Your task to perform on an android device: turn pop-ups off in chrome Image 0: 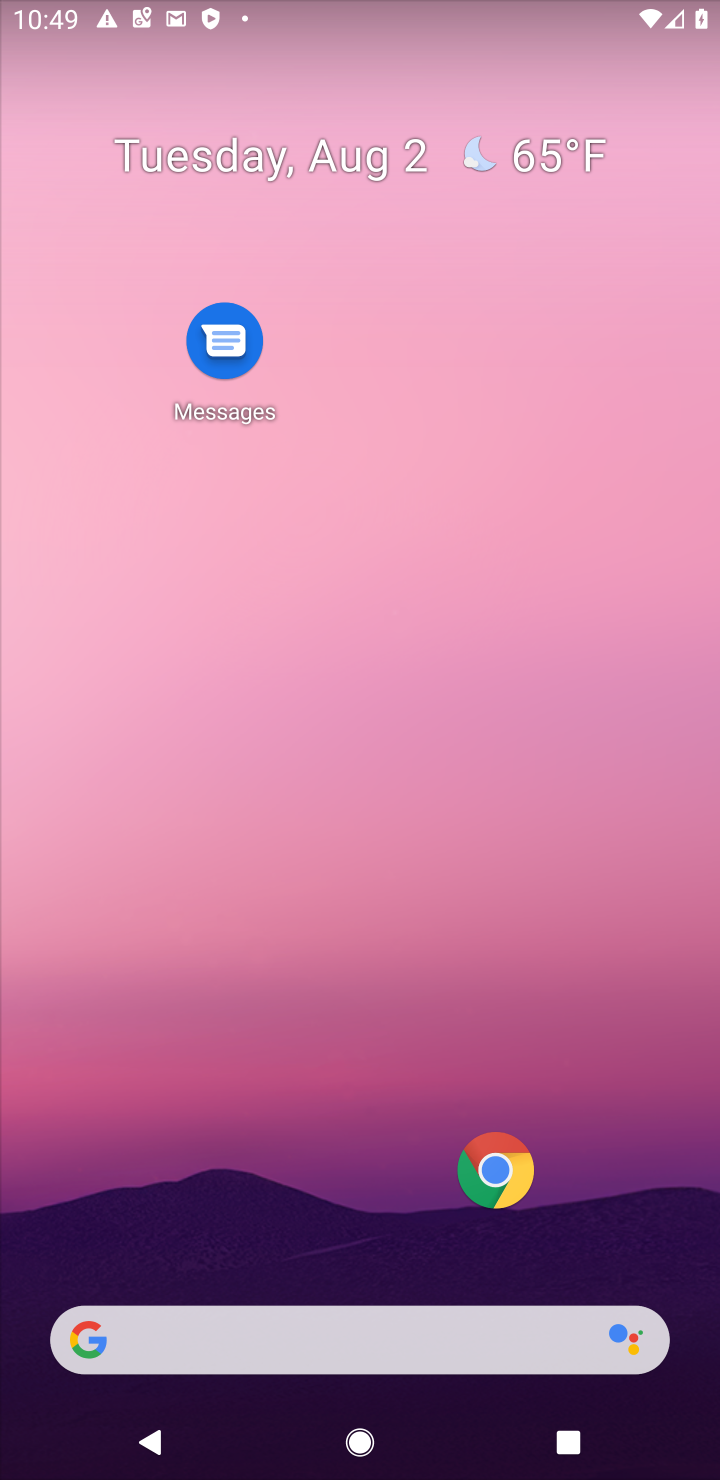
Step 0: click (362, 295)
Your task to perform on an android device: turn pop-ups off in chrome Image 1: 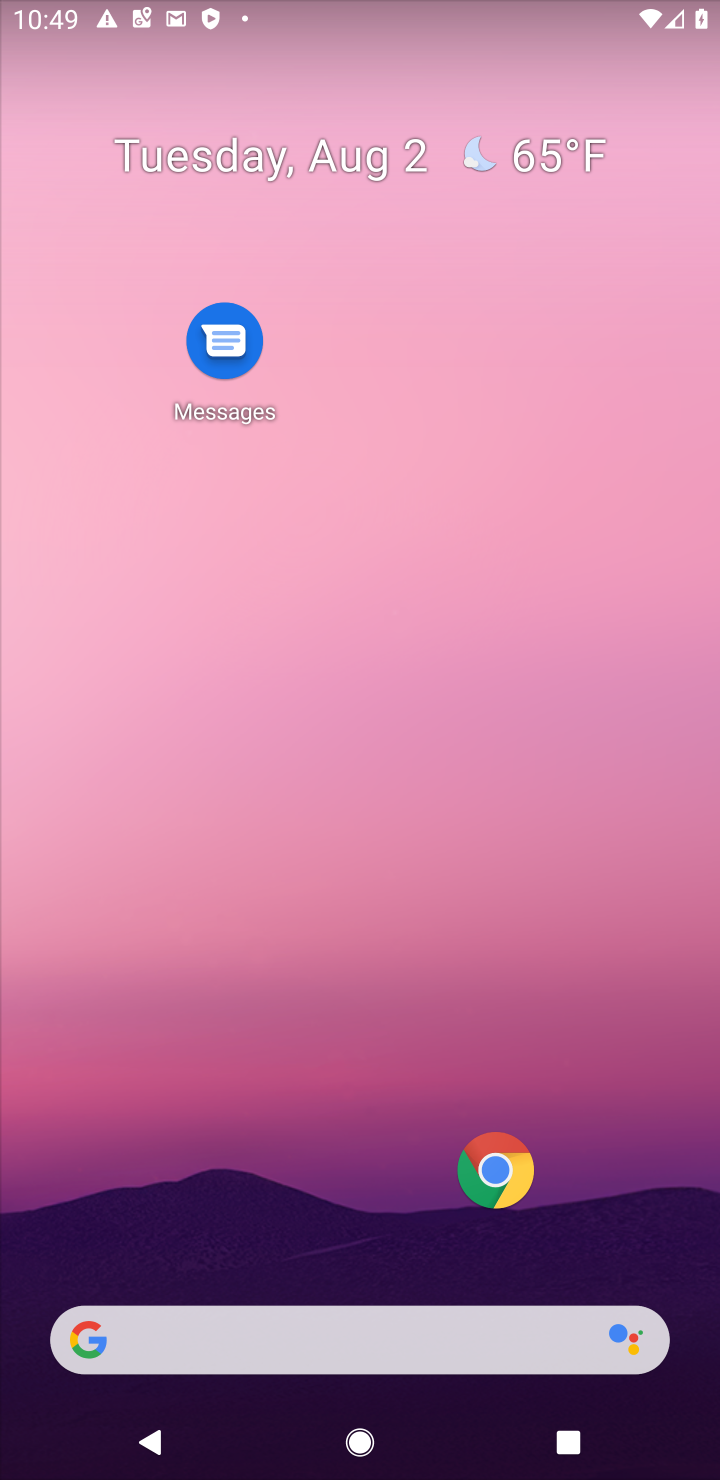
Step 1: drag from (451, 1121) to (612, 488)
Your task to perform on an android device: turn pop-ups off in chrome Image 2: 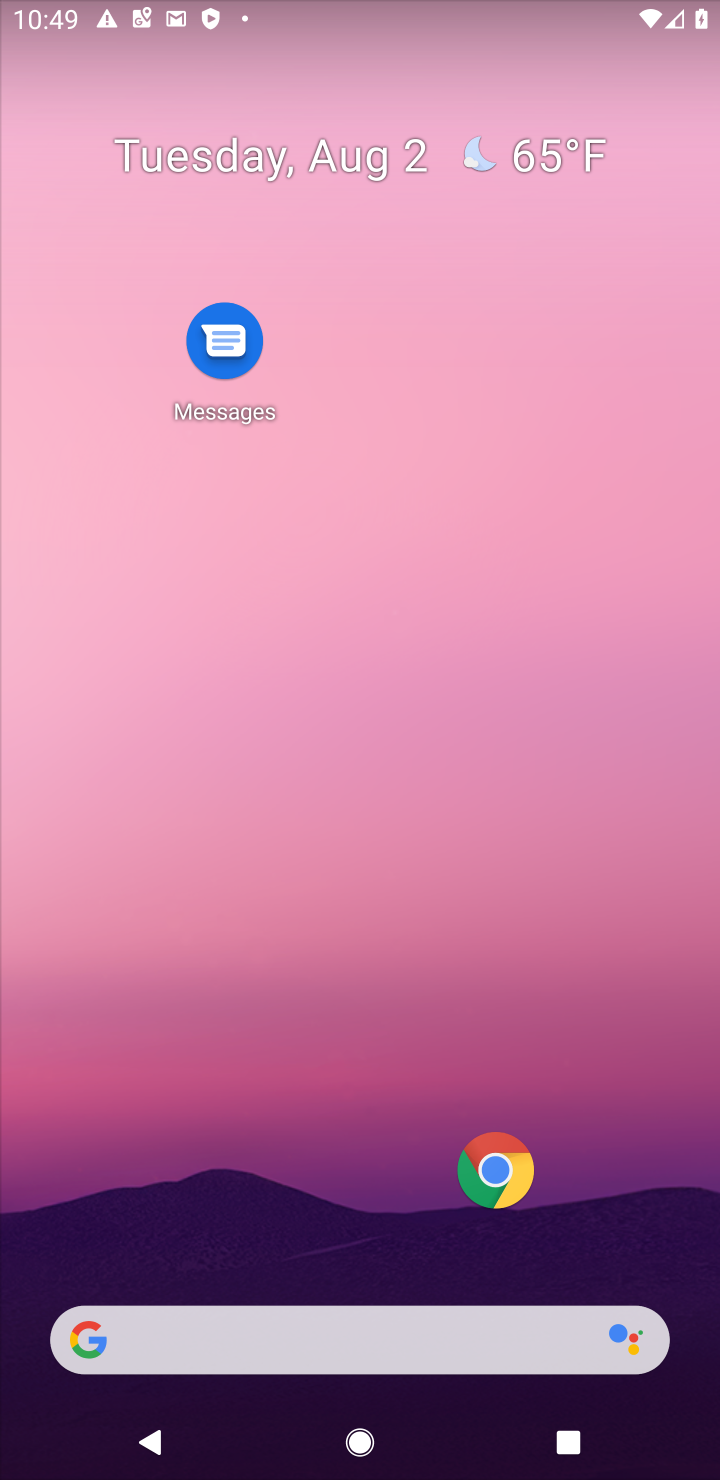
Step 2: click (412, 147)
Your task to perform on an android device: turn pop-ups off in chrome Image 3: 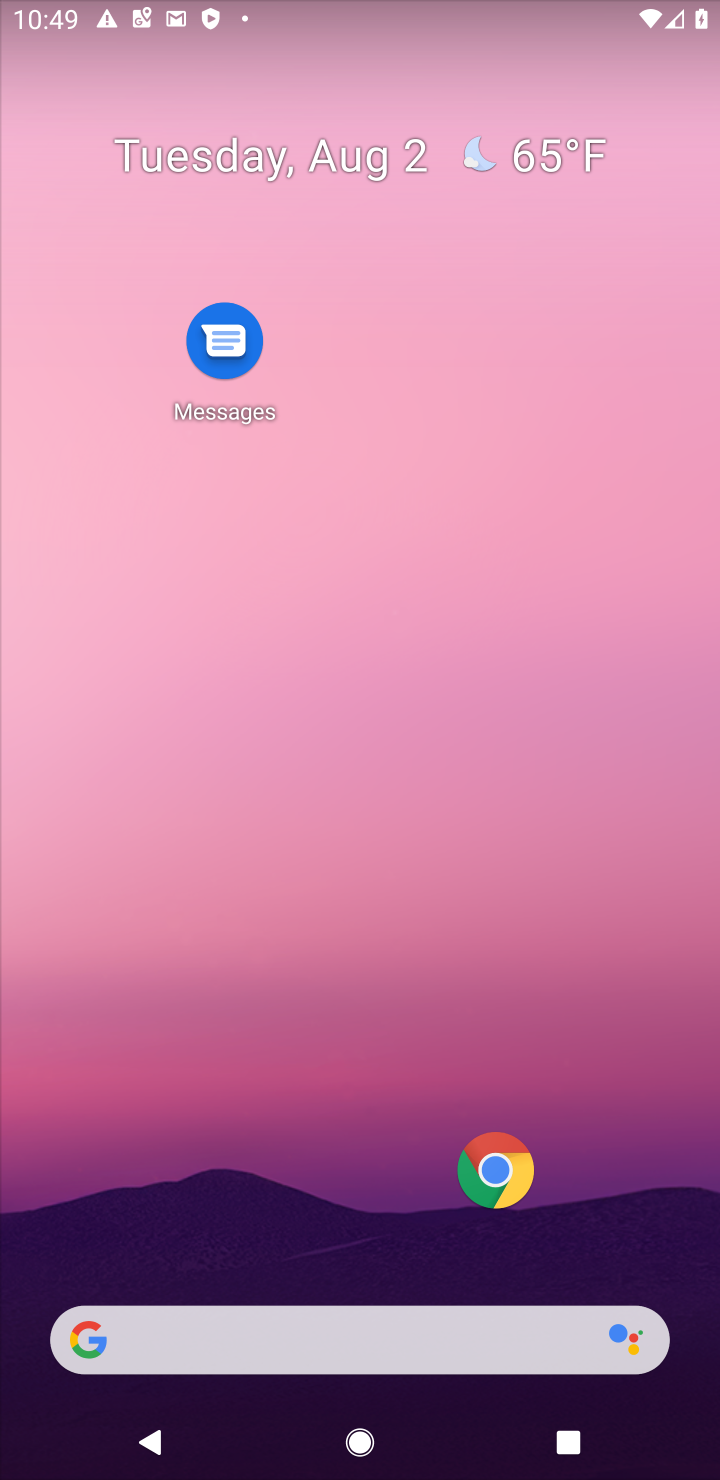
Step 3: drag from (360, 1243) to (378, 315)
Your task to perform on an android device: turn pop-ups off in chrome Image 4: 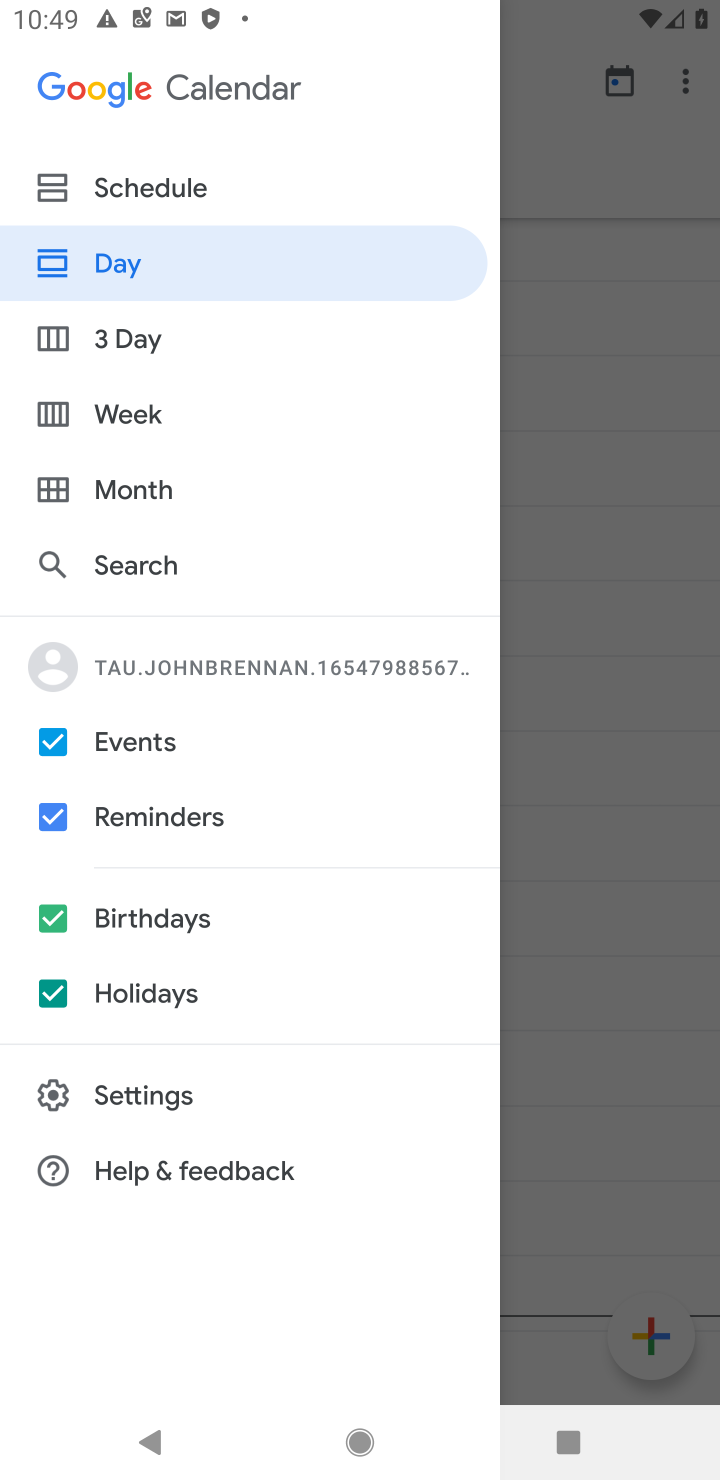
Step 4: drag from (170, 1130) to (312, 493)
Your task to perform on an android device: turn pop-ups off in chrome Image 5: 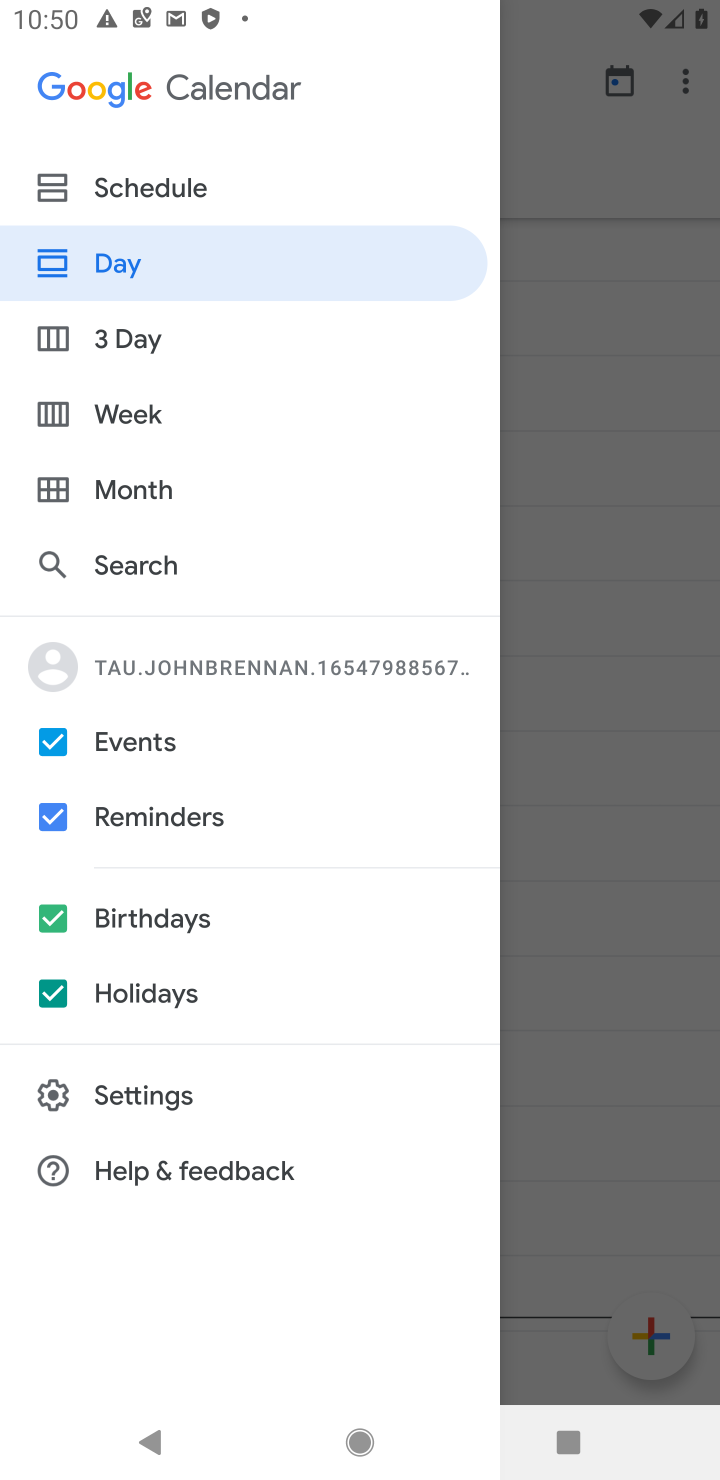
Step 5: press home button
Your task to perform on an android device: turn pop-ups off in chrome Image 6: 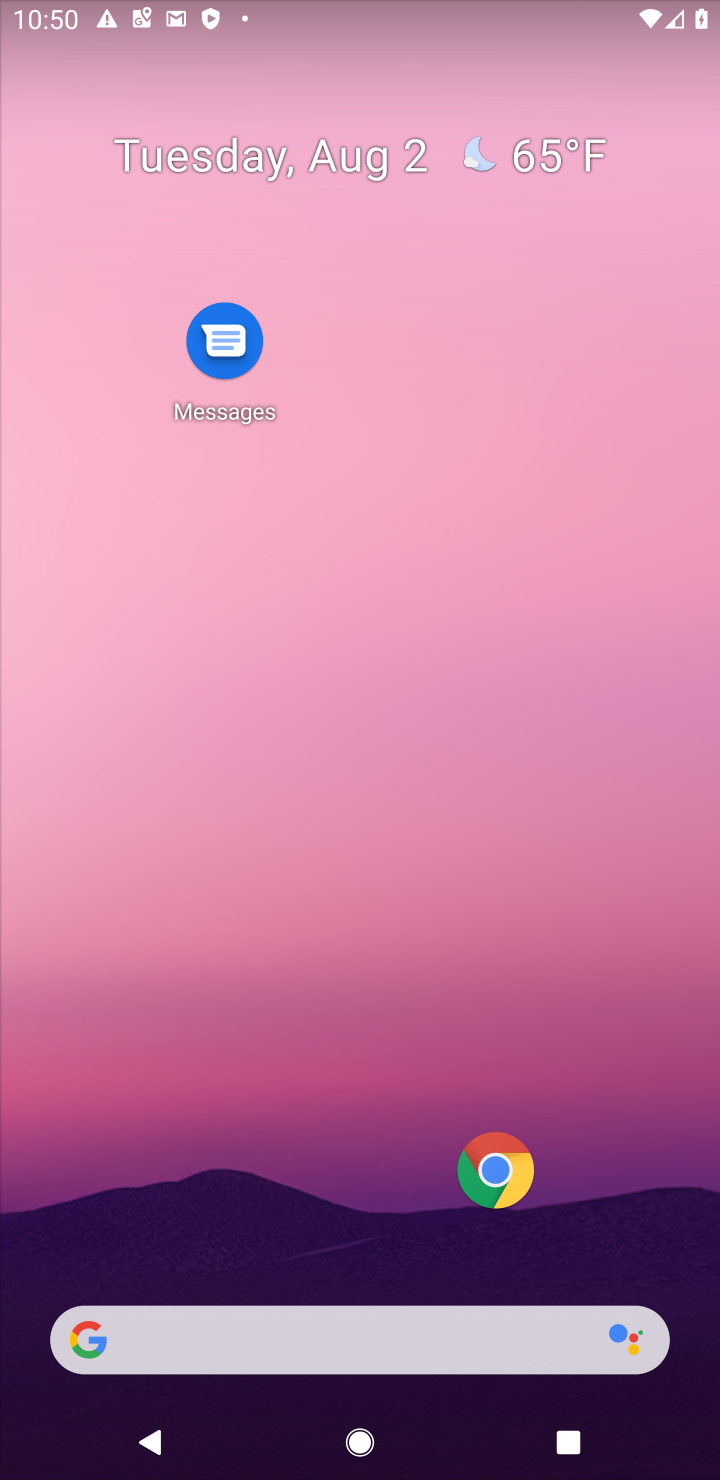
Step 6: click (476, 487)
Your task to perform on an android device: turn pop-ups off in chrome Image 7: 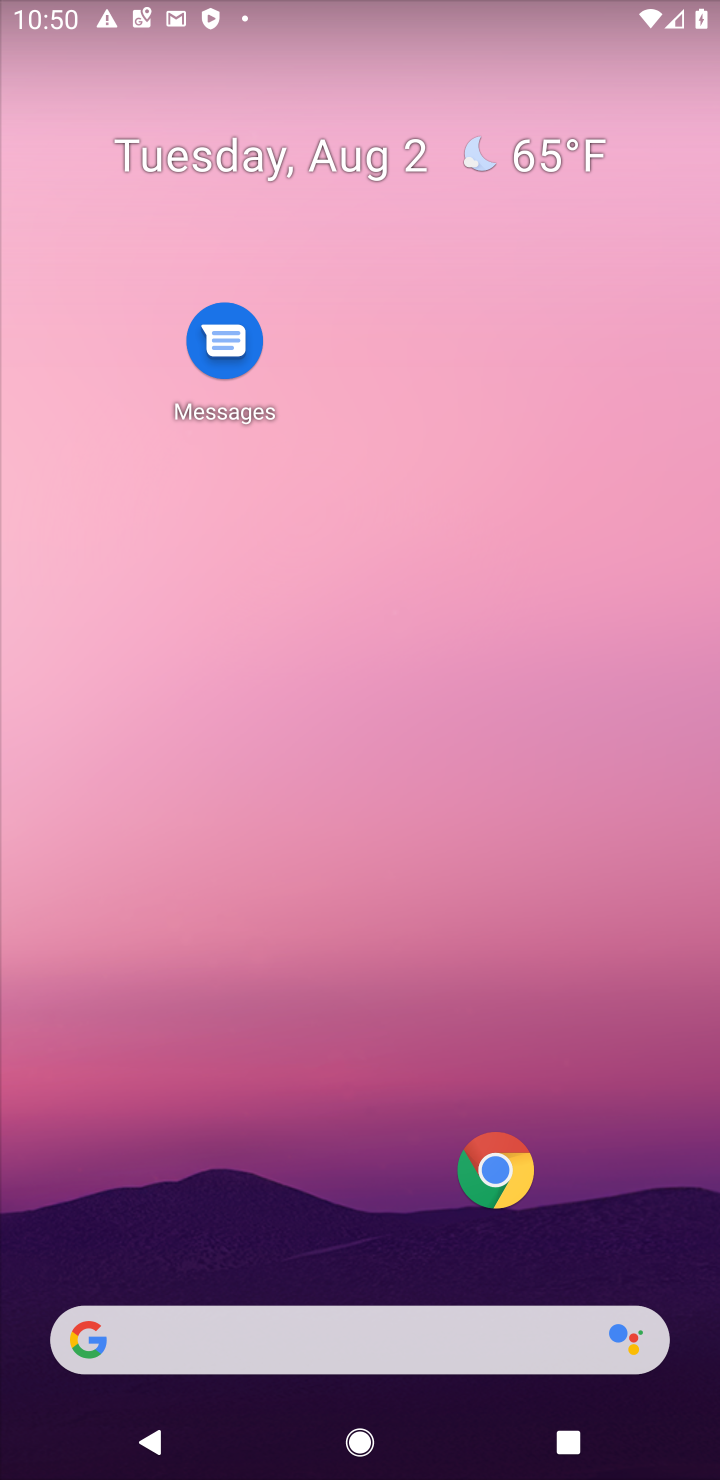
Step 7: click (506, 1173)
Your task to perform on an android device: turn pop-ups off in chrome Image 8: 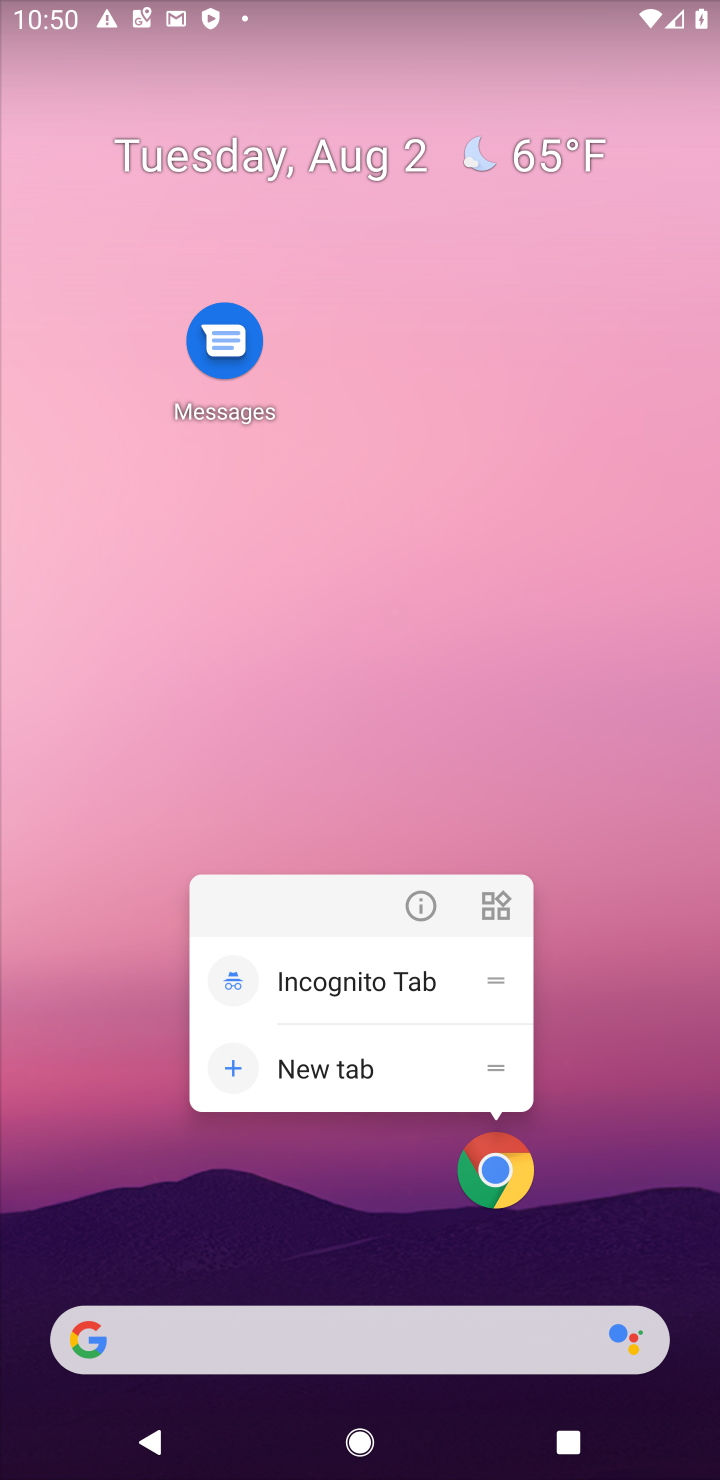
Step 8: click (486, 1181)
Your task to perform on an android device: turn pop-ups off in chrome Image 9: 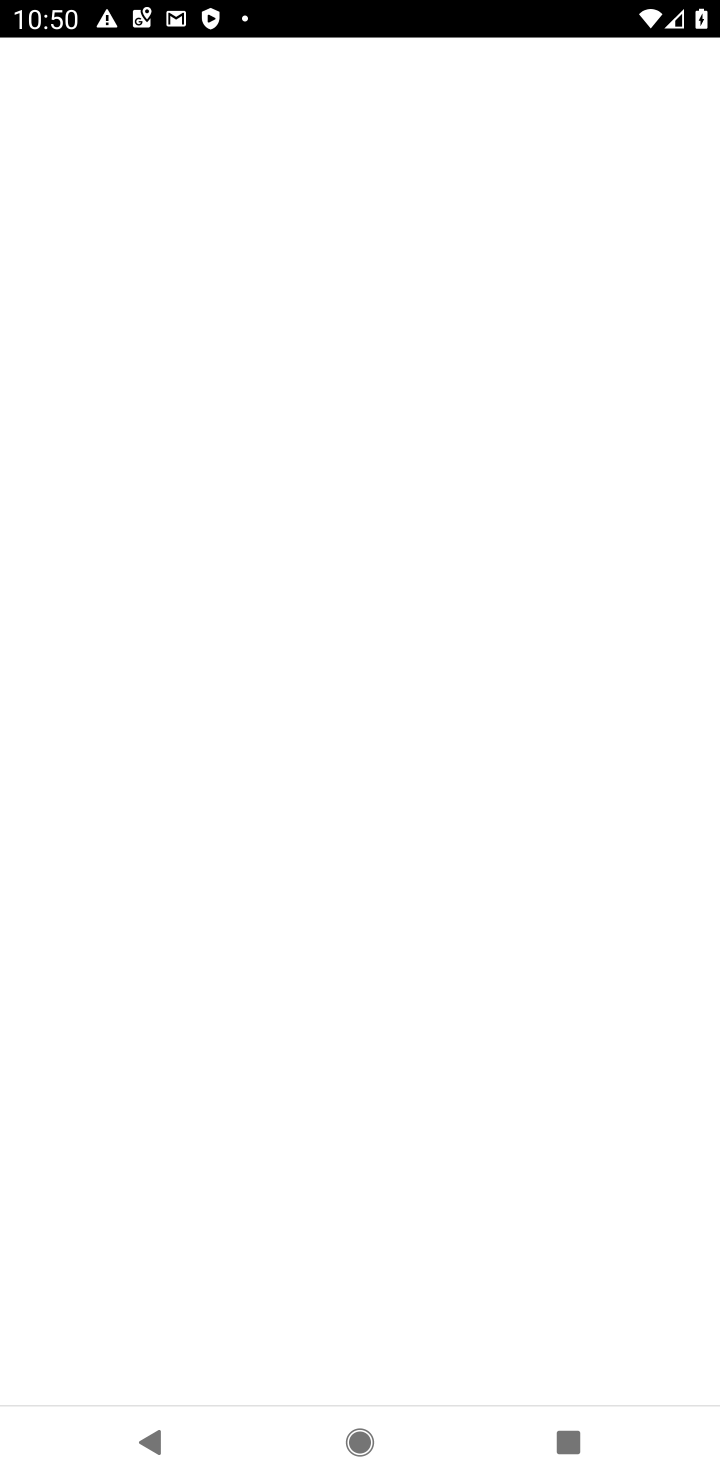
Step 9: click (501, 1179)
Your task to perform on an android device: turn pop-ups off in chrome Image 10: 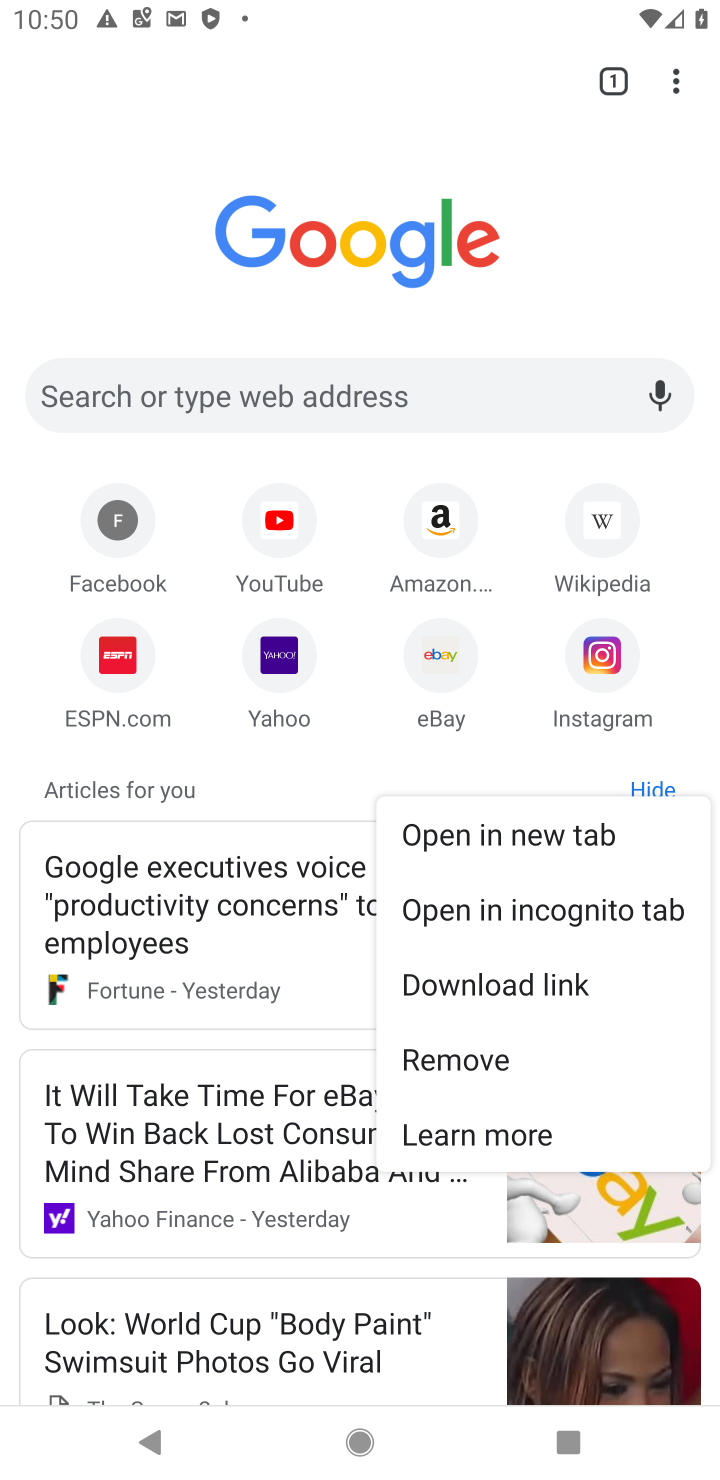
Step 10: drag from (476, 1116) to (353, 1477)
Your task to perform on an android device: turn pop-ups off in chrome Image 11: 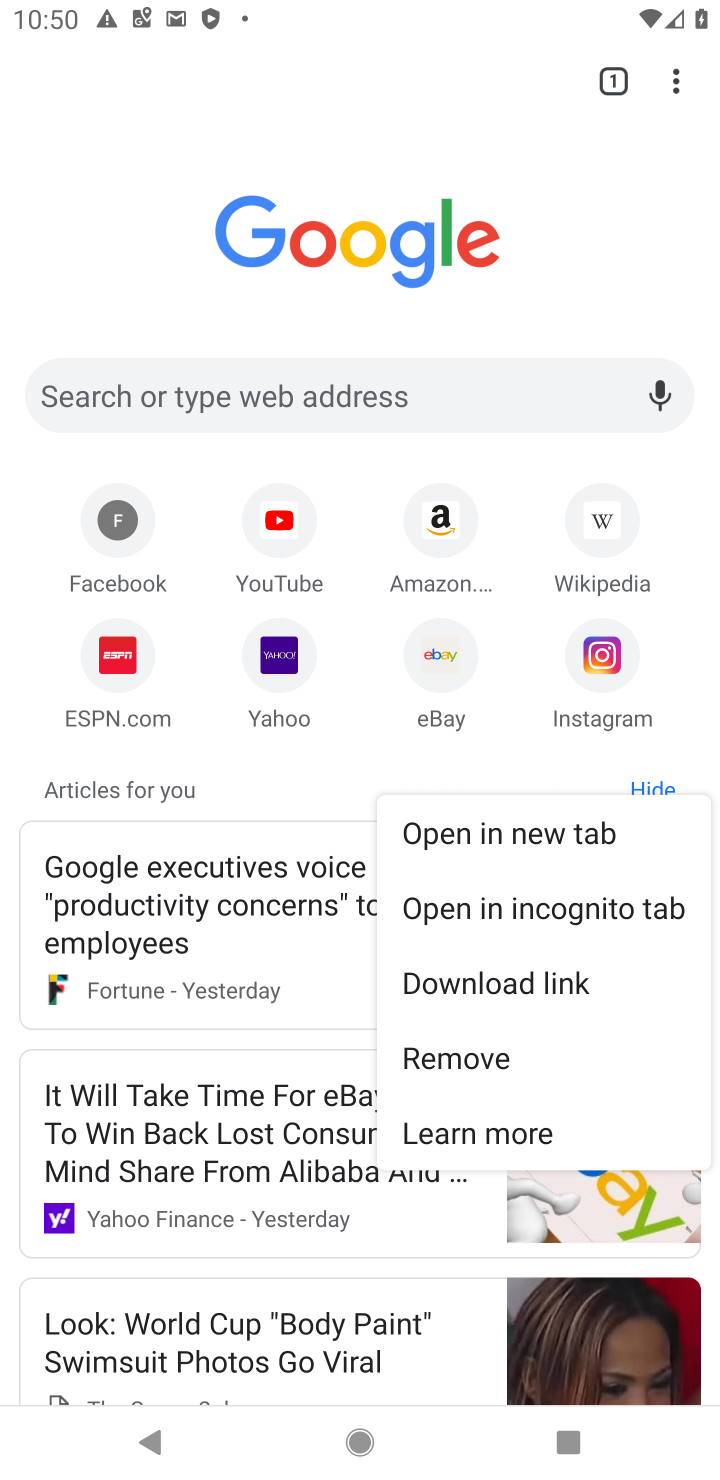
Step 11: click (682, 80)
Your task to perform on an android device: turn pop-ups off in chrome Image 12: 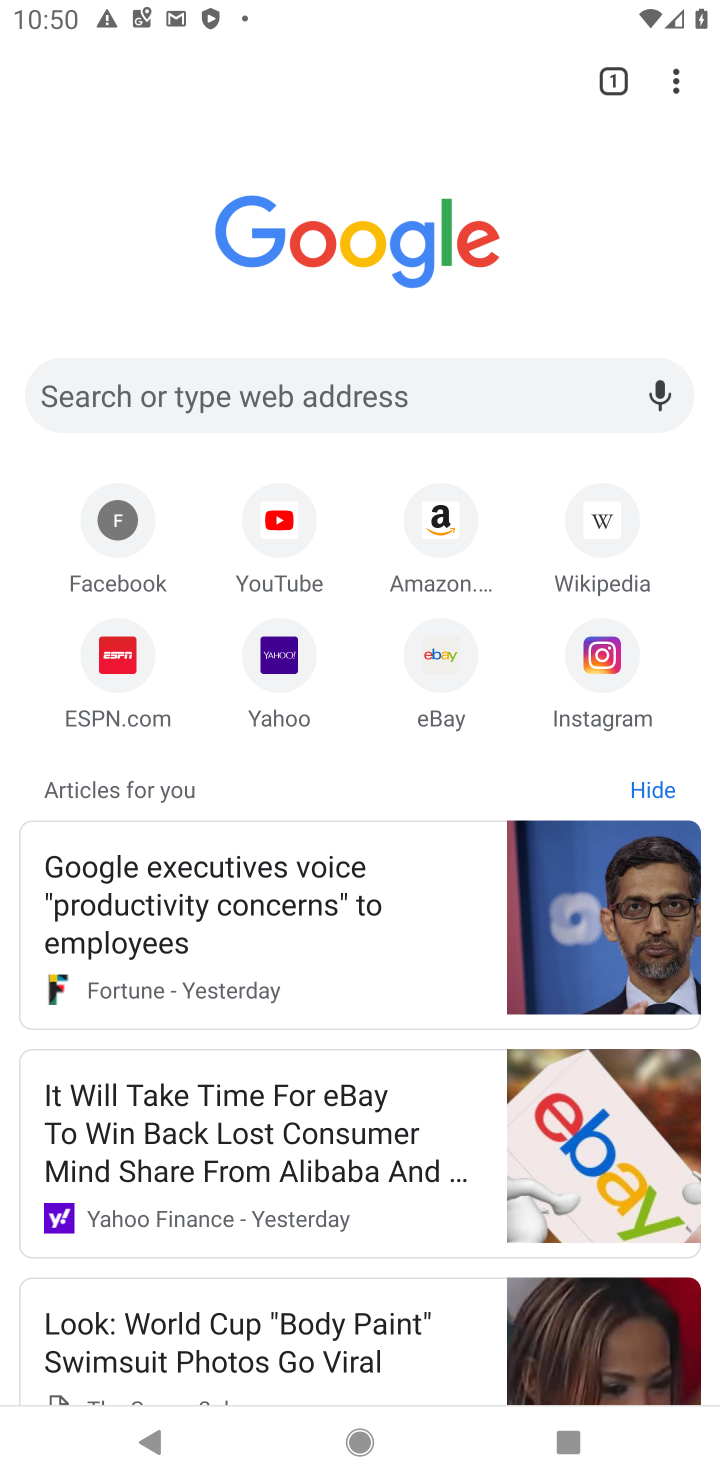
Step 12: drag from (642, 139) to (435, 997)
Your task to perform on an android device: turn pop-ups off in chrome Image 13: 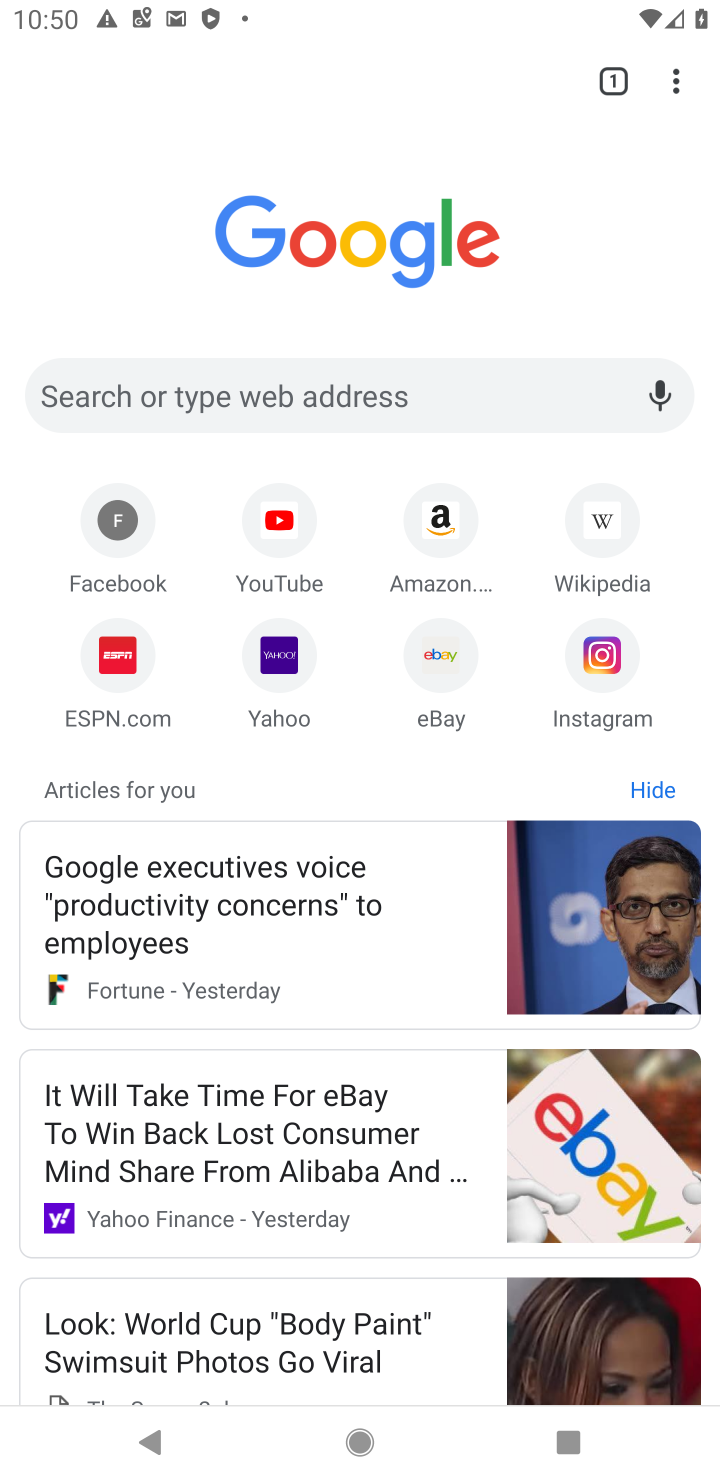
Step 13: drag from (685, 82) to (477, 760)
Your task to perform on an android device: turn pop-ups off in chrome Image 14: 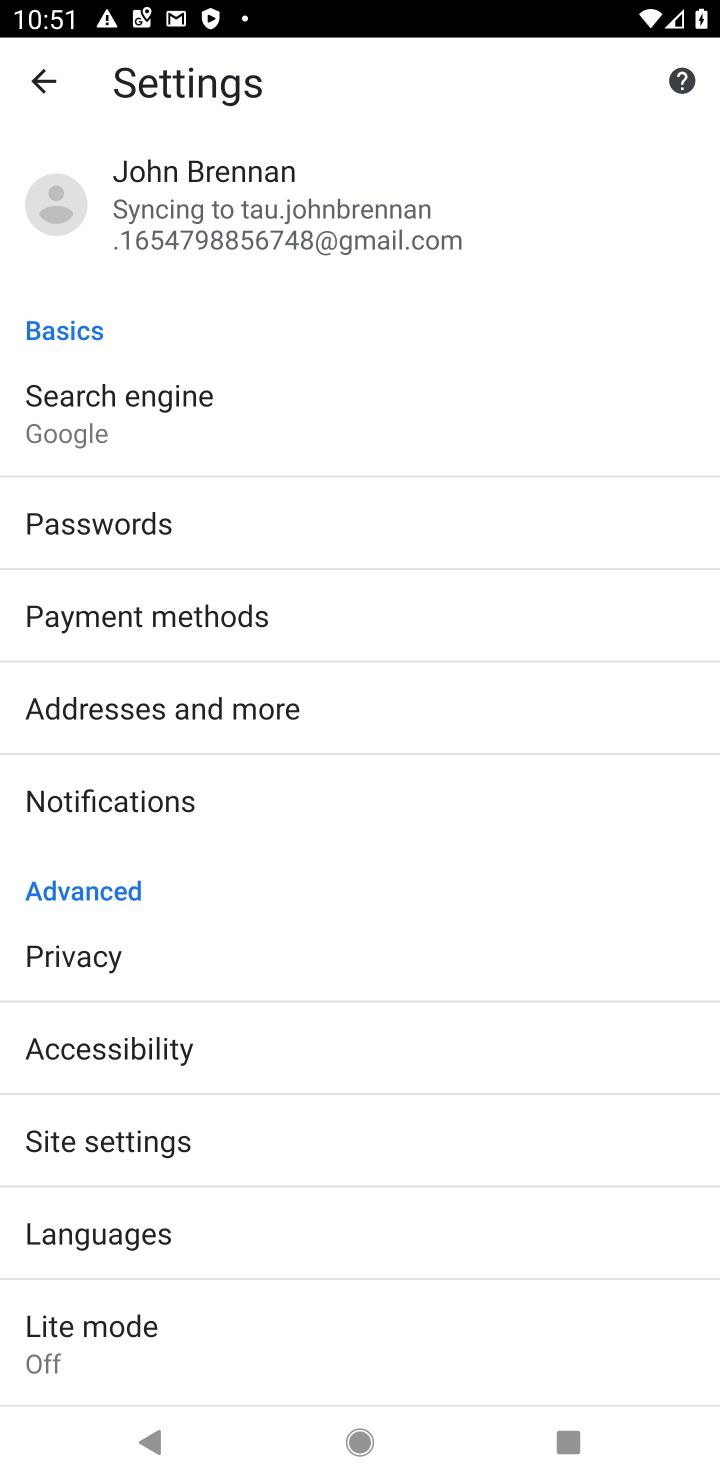
Step 14: click (405, 636)
Your task to perform on an android device: turn pop-ups off in chrome Image 15: 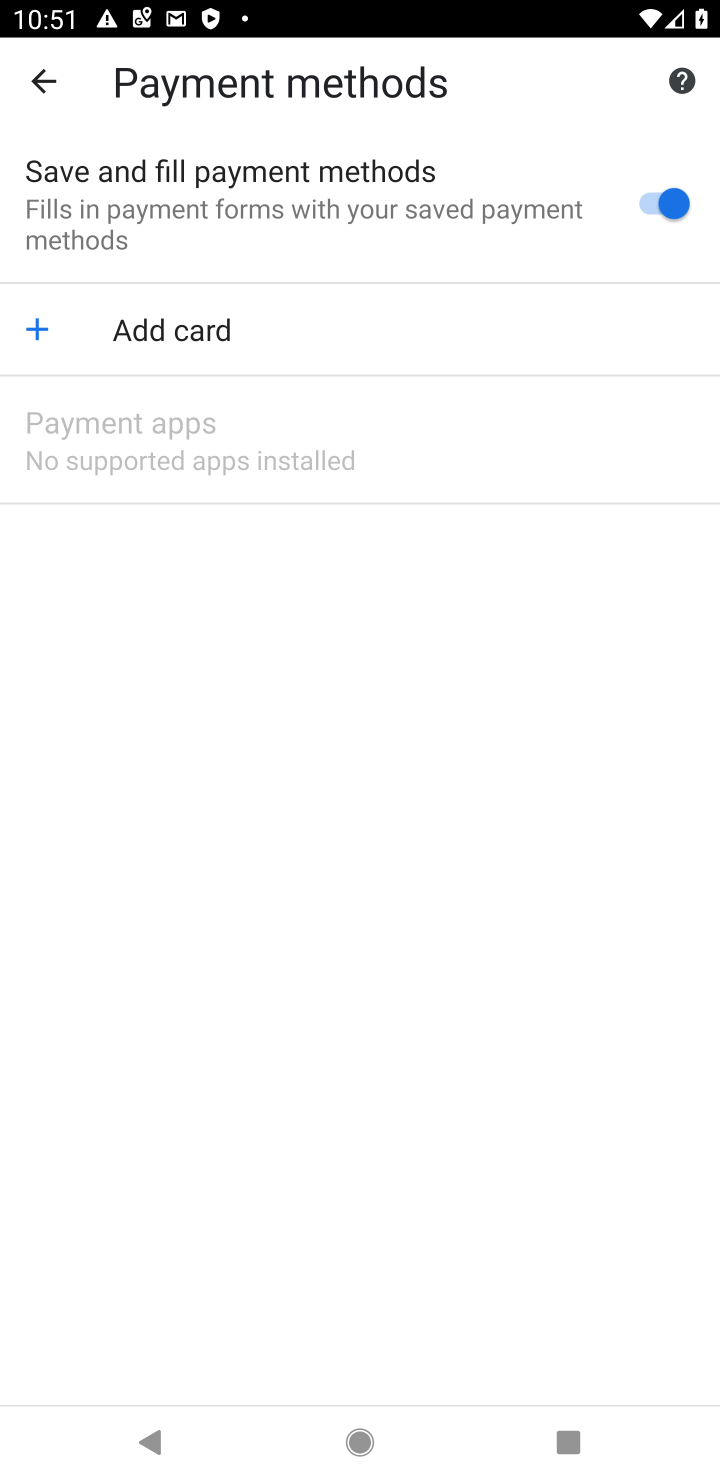
Step 15: drag from (317, 1171) to (296, 674)
Your task to perform on an android device: turn pop-ups off in chrome Image 16: 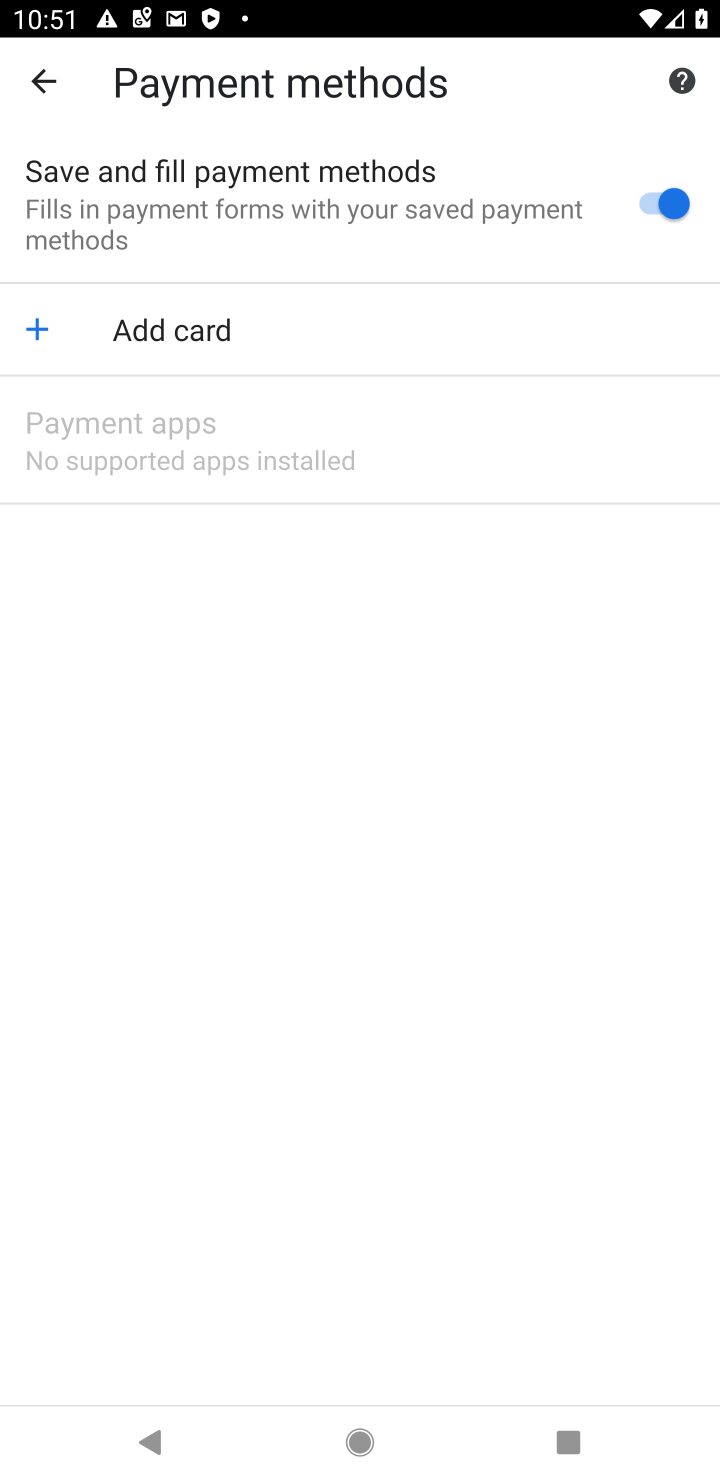
Step 16: press back button
Your task to perform on an android device: turn pop-ups off in chrome Image 17: 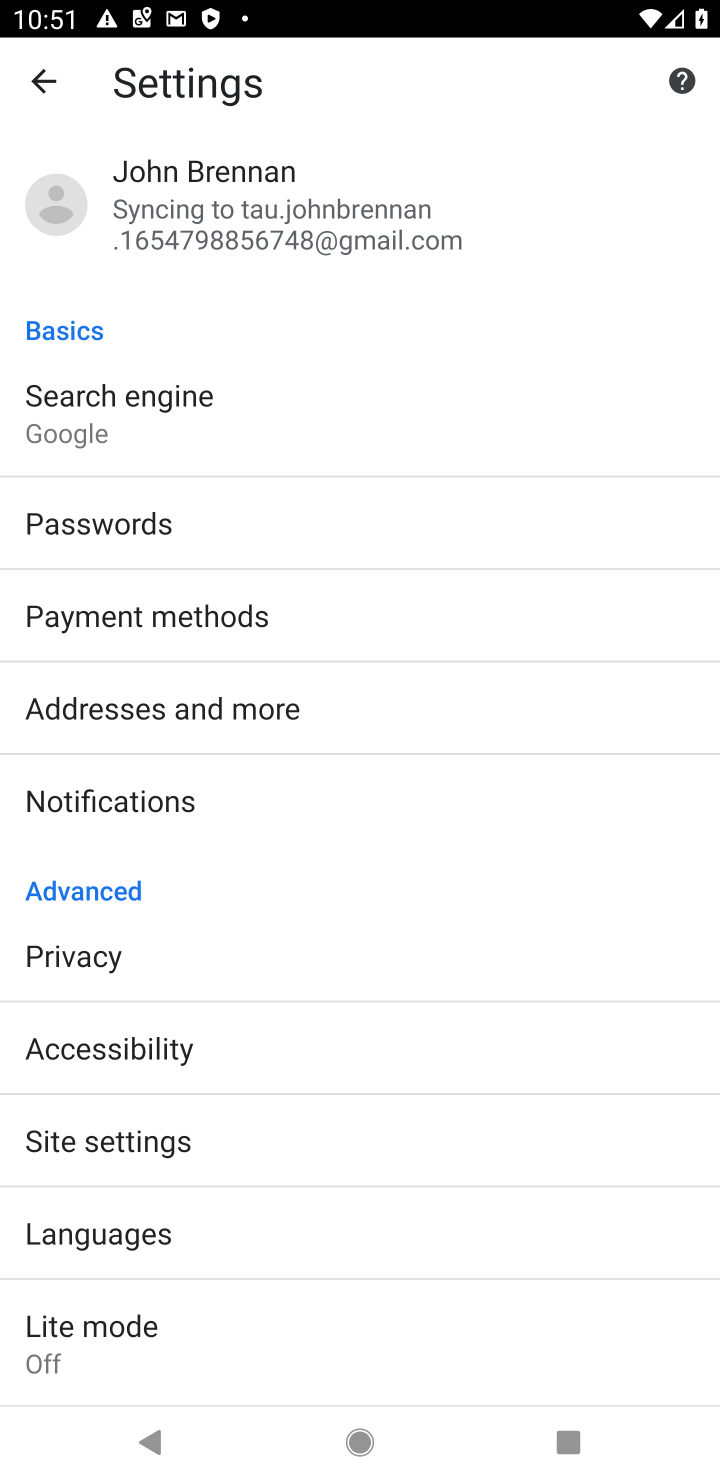
Step 17: click (201, 1122)
Your task to perform on an android device: turn pop-ups off in chrome Image 18: 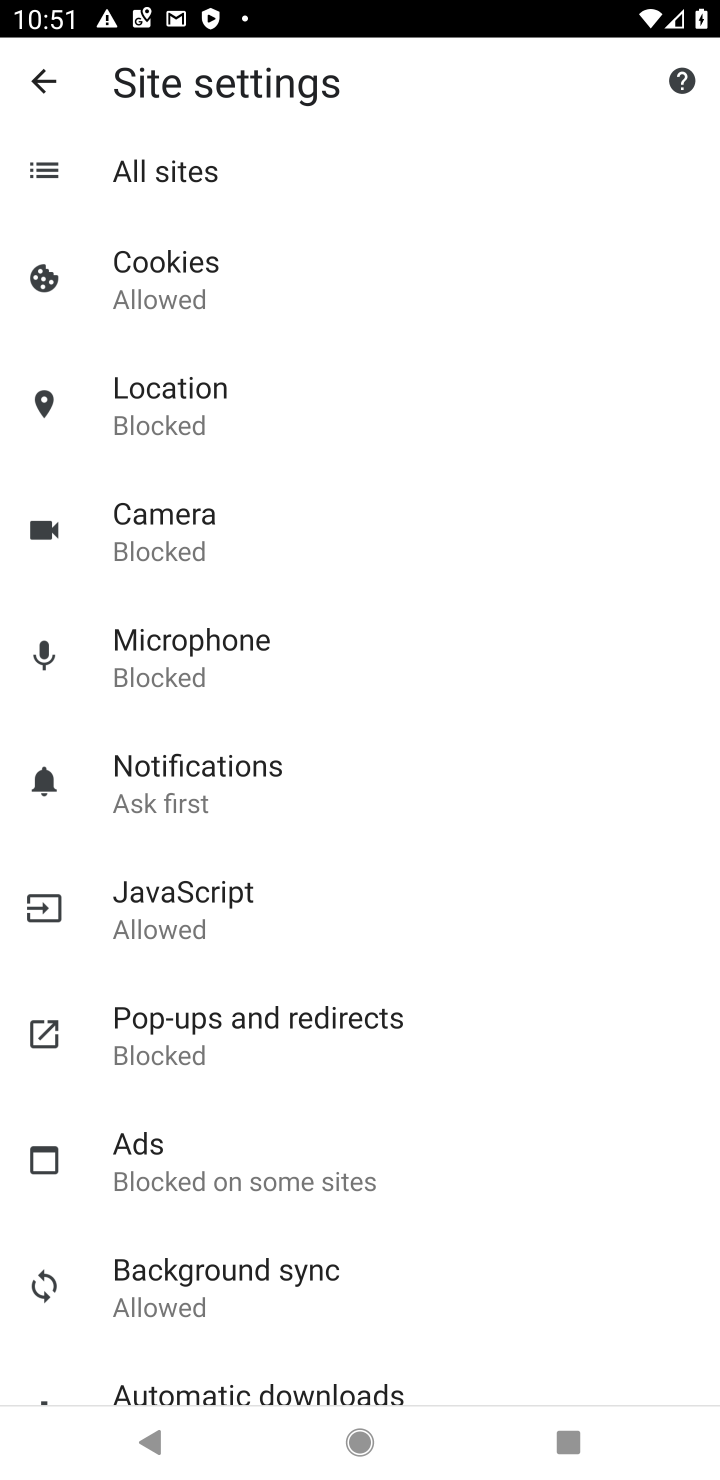
Step 18: click (196, 1021)
Your task to perform on an android device: turn pop-ups off in chrome Image 19: 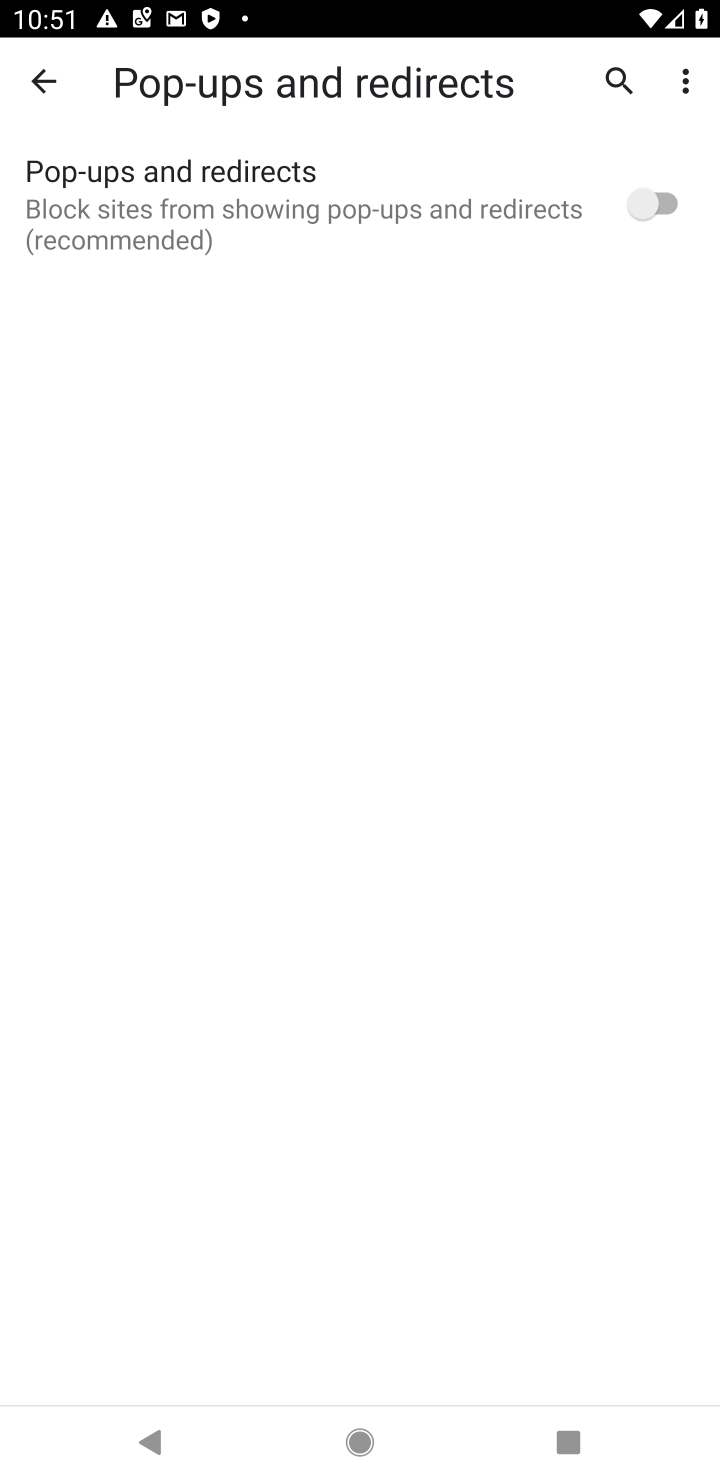
Step 19: task complete